Your task to perform on an android device: add a contact Image 0: 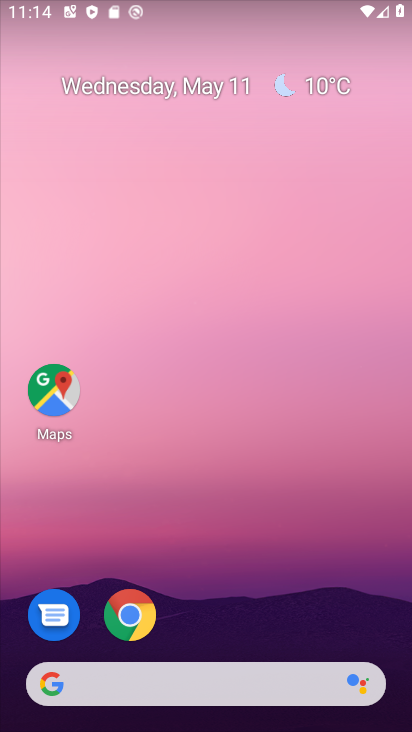
Step 0: drag from (214, 659) to (331, 112)
Your task to perform on an android device: add a contact Image 1: 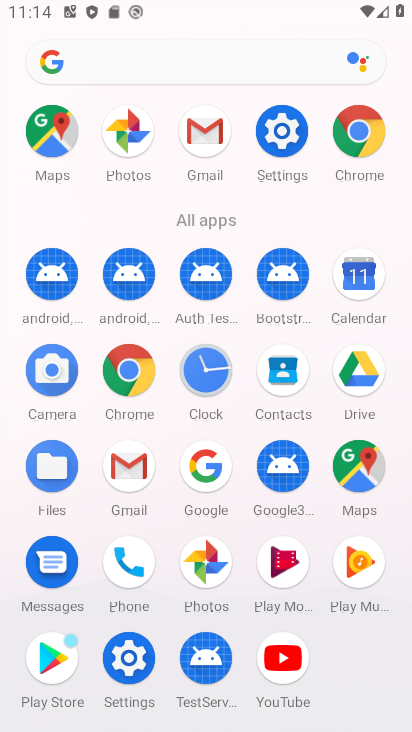
Step 1: click (318, 365)
Your task to perform on an android device: add a contact Image 2: 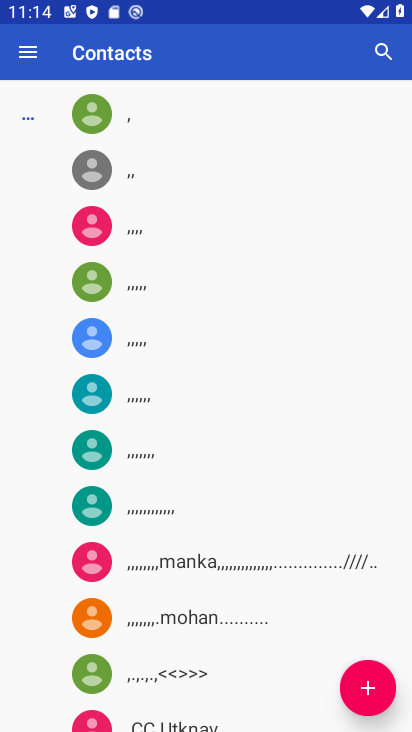
Step 2: click (381, 698)
Your task to perform on an android device: add a contact Image 3: 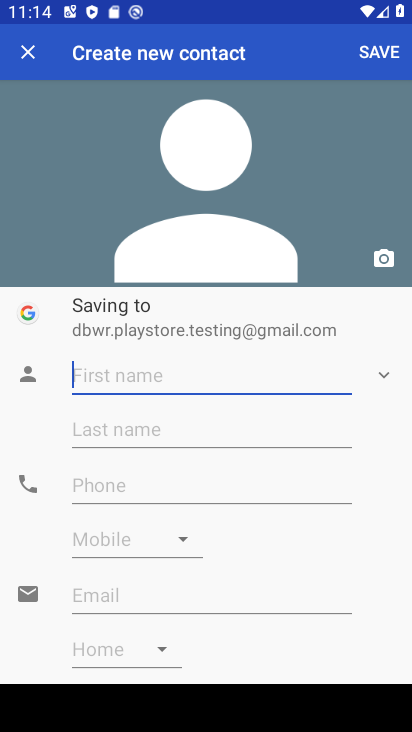
Step 3: type "Henery "
Your task to perform on an android device: add a contact Image 4: 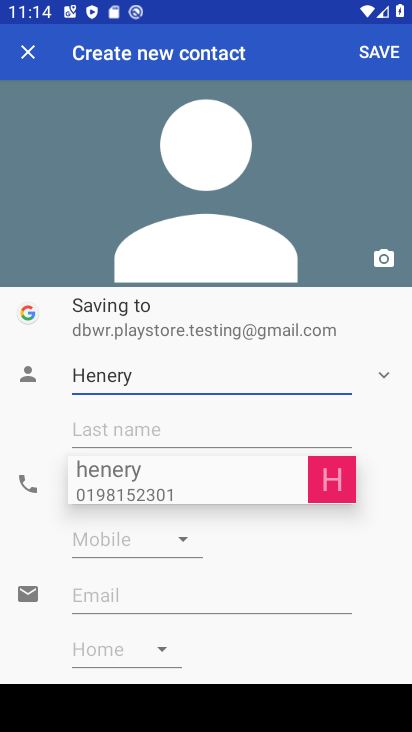
Step 4: click (149, 471)
Your task to perform on an android device: add a contact Image 5: 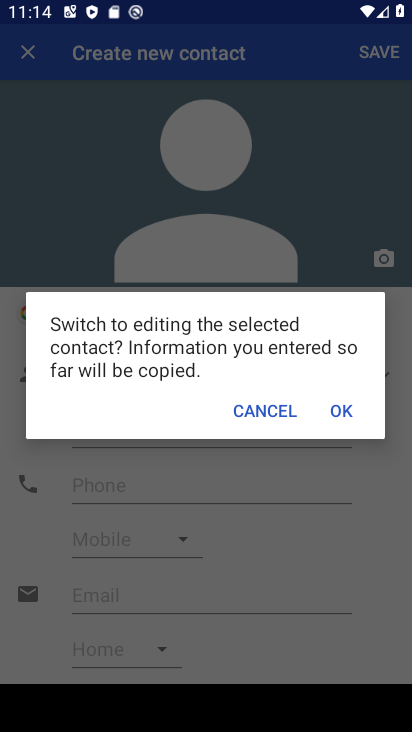
Step 5: click (265, 409)
Your task to perform on an android device: add a contact Image 6: 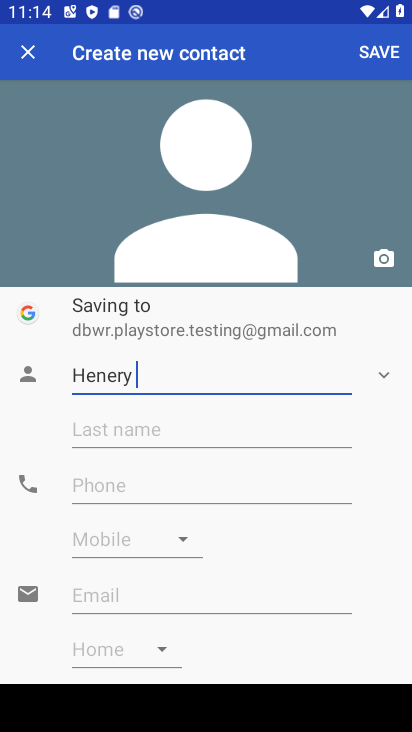
Step 6: type "tyttt"
Your task to perform on an android device: add a contact Image 7: 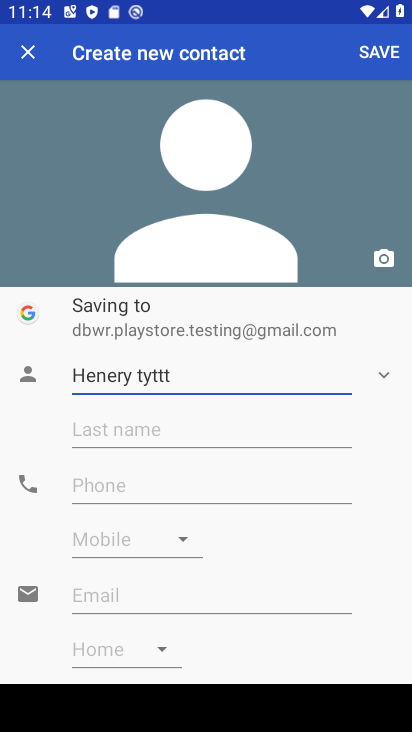
Step 7: click (87, 487)
Your task to perform on an android device: add a contact Image 8: 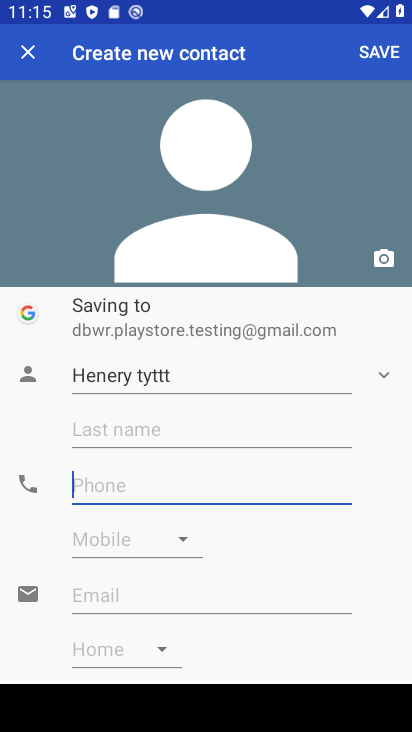
Step 8: type "122111432"
Your task to perform on an android device: add a contact Image 9: 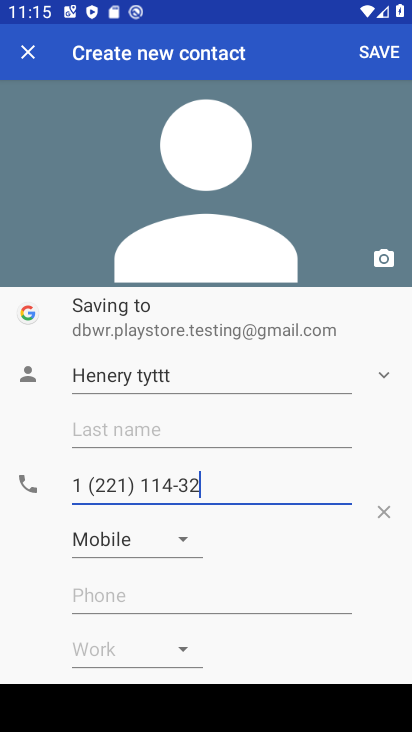
Step 9: click (397, 50)
Your task to perform on an android device: add a contact Image 10: 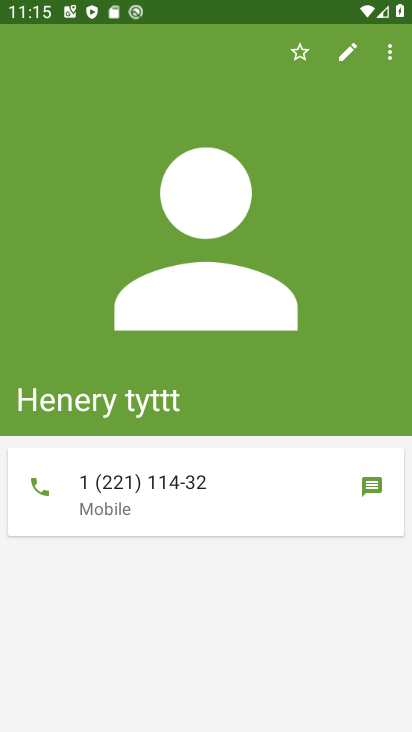
Step 10: task complete